Your task to perform on an android device: change notifications settings Image 0: 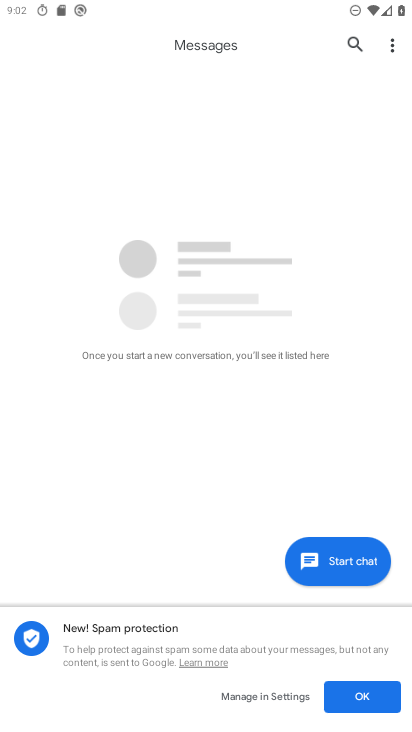
Step 0: press home button
Your task to perform on an android device: change notifications settings Image 1: 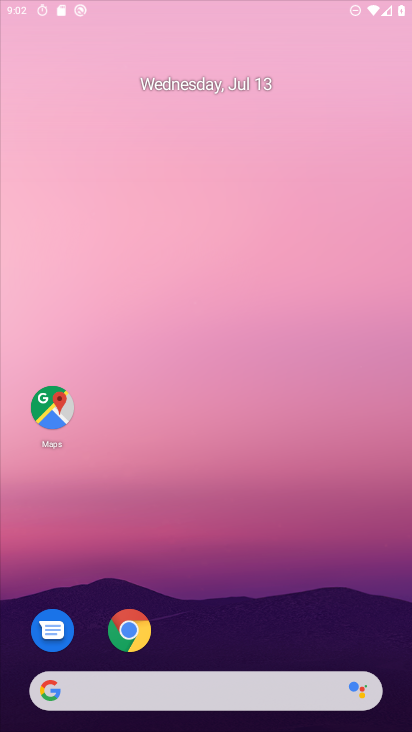
Step 1: drag from (377, 696) to (186, 23)
Your task to perform on an android device: change notifications settings Image 2: 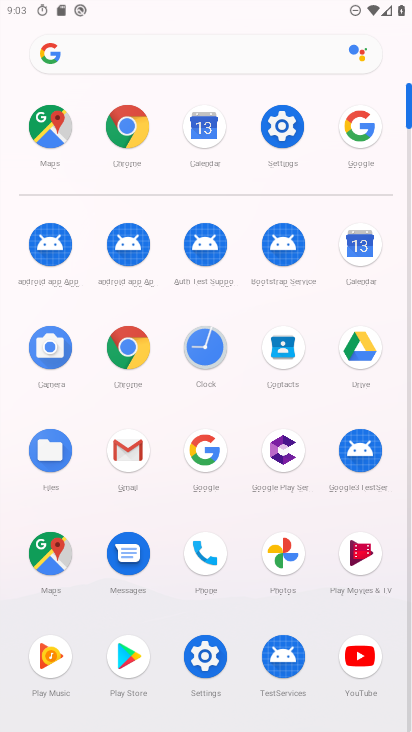
Step 2: click (190, 656)
Your task to perform on an android device: change notifications settings Image 3: 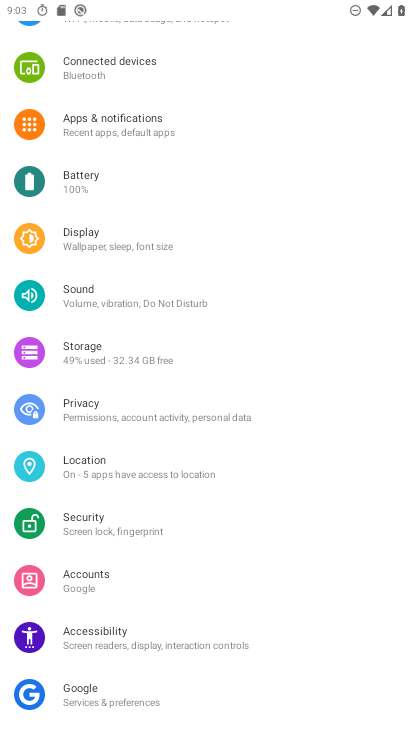
Step 3: click (131, 122)
Your task to perform on an android device: change notifications settings Image 4: 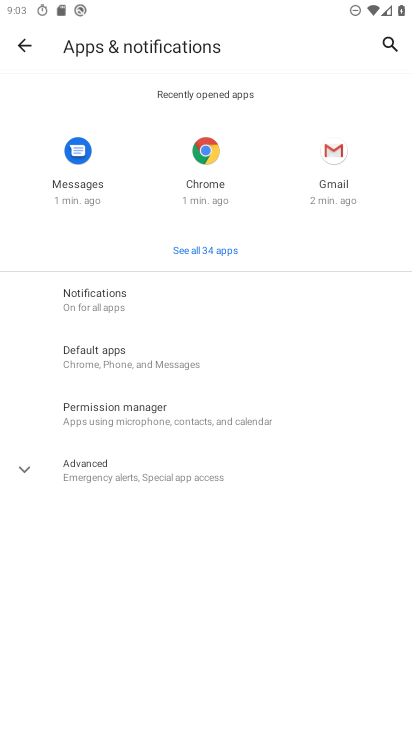
Step 4: click (148, 306)
Your task to perform on an android device: change notifications settings Image 5: 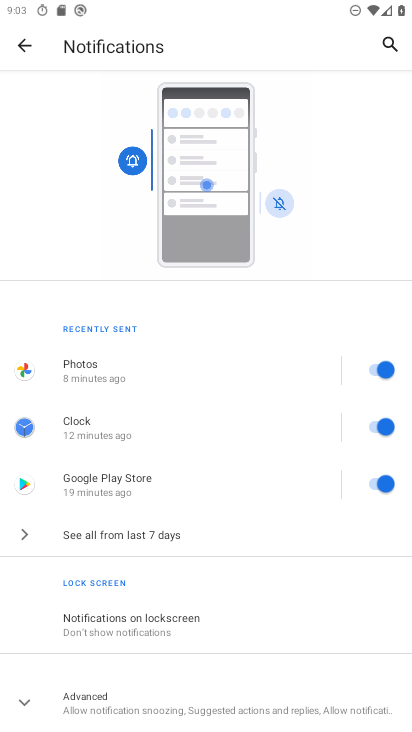
Step 5: task complete